Your task to perform on an android device: Go to notification settings Image 0: 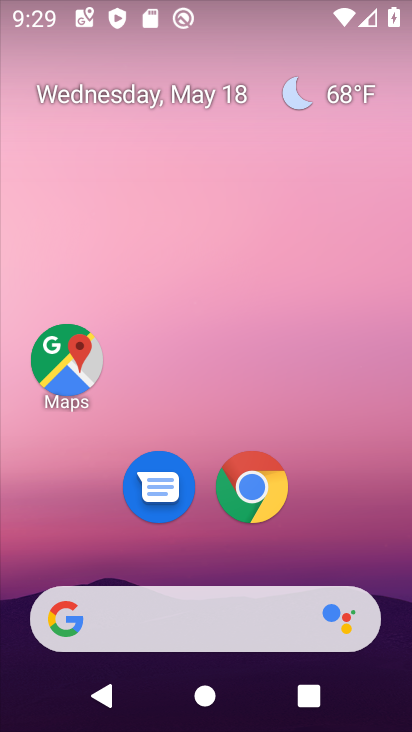
Step 0: drag from (392, 515) to (343, 206)
Your task to perform on an android device: Go to notification settings Image 1: 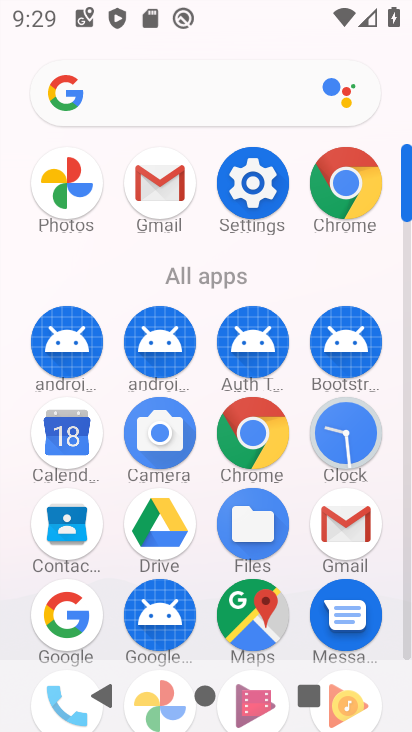
Step 1: click (236, 185)
Your task to perform on an android device: Go to notification settings Image 2: 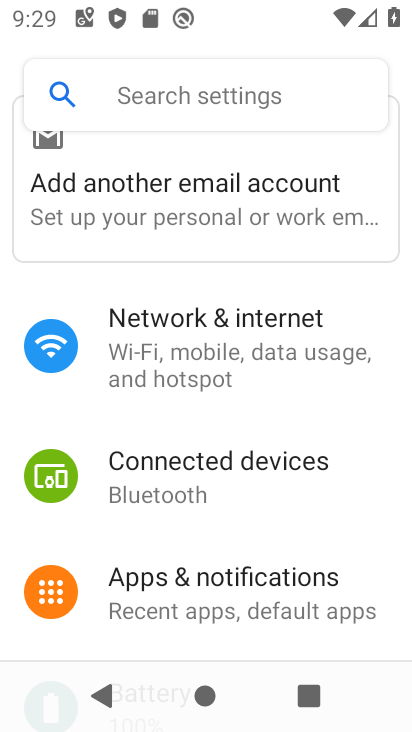
Step 2: click (251, 571)
Your task to perform on an android device: Go to notification settings Image 3: 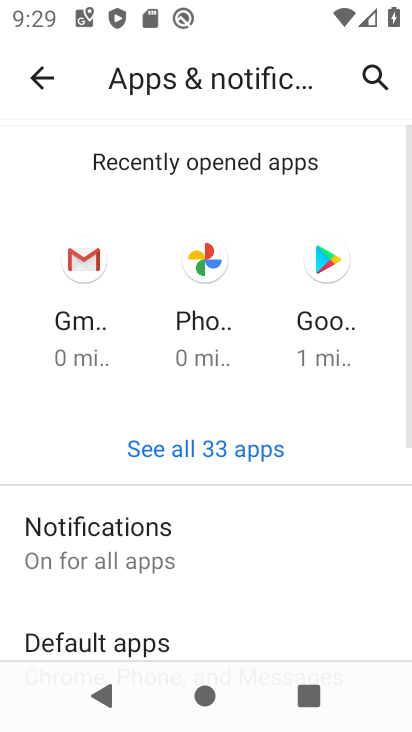
Step 3: drag from (268, 550) to (252, 210)
Your task to perform on an android device: Go to notification settings Image 4: 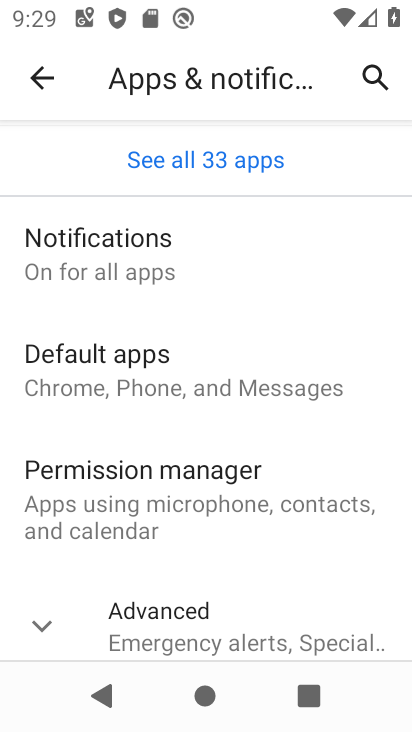
Step 4: click (179, 284)
Your task to perform on an android device: Go to notification settings Image 5: 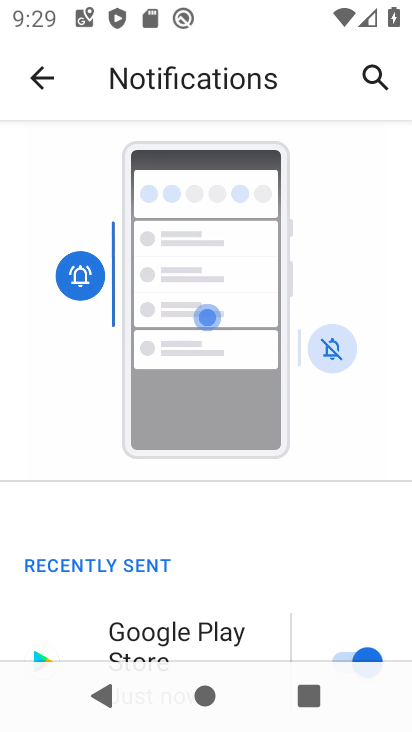
Step 5: task complete